Your task to perform on an android device: Open maps Image 0: 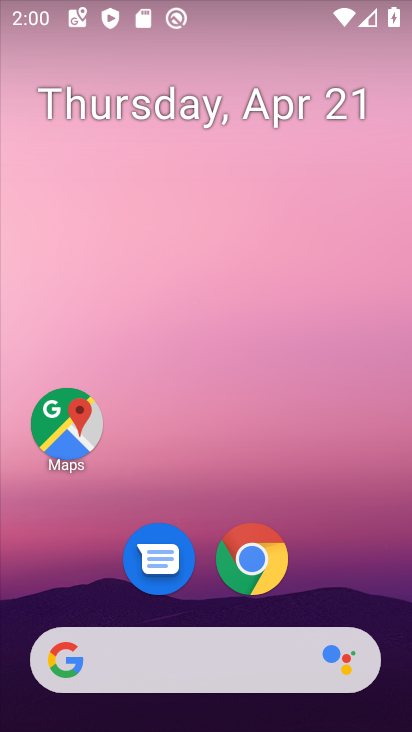
Step 0: click (66, 420)
Your task to perform on an android device: Open maps Image 1: 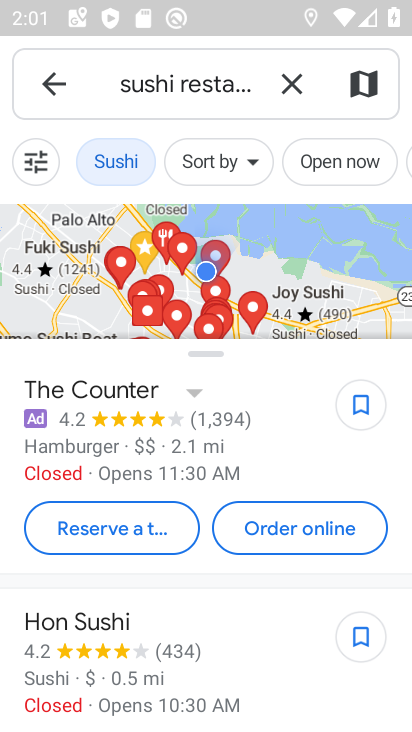
Step 1: task complete